Your task to perform on an android device: check storage Image 0: 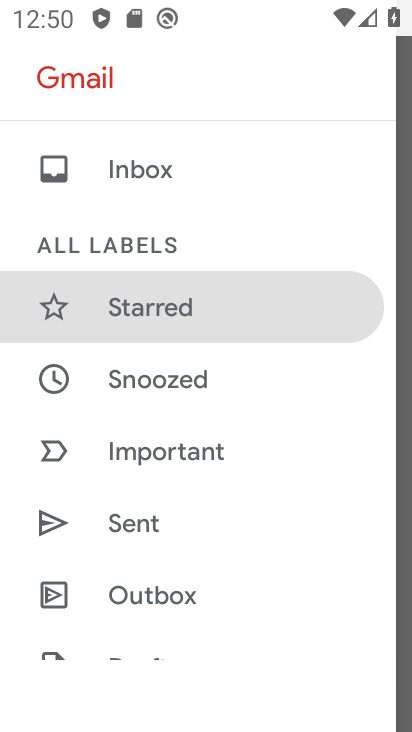
Step 0: press home button
Your task to perform on an android device: check storage Image 1: 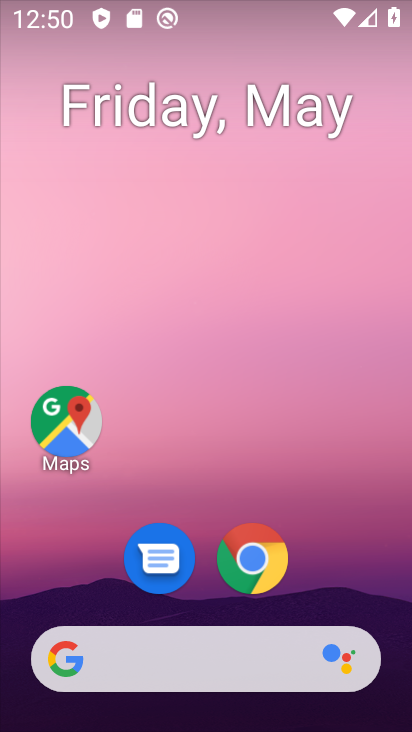
Step 1: drag from (369, 581) to (281, 103)
Your task to perform on an android device: check storage Image 2: 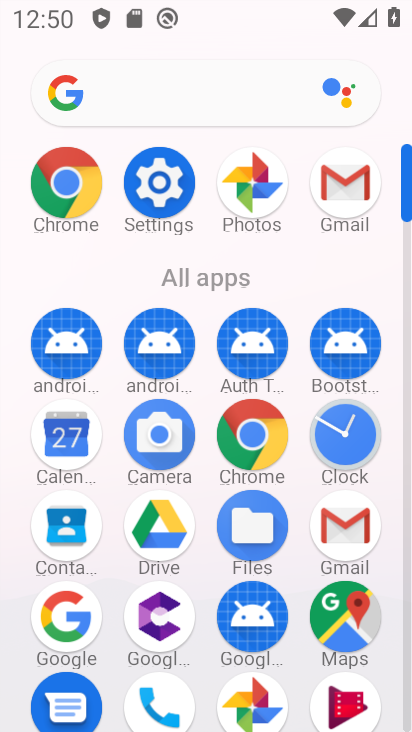
Step 2: click (173, 189)
Your task to perform on an android device: check storage Image 3: 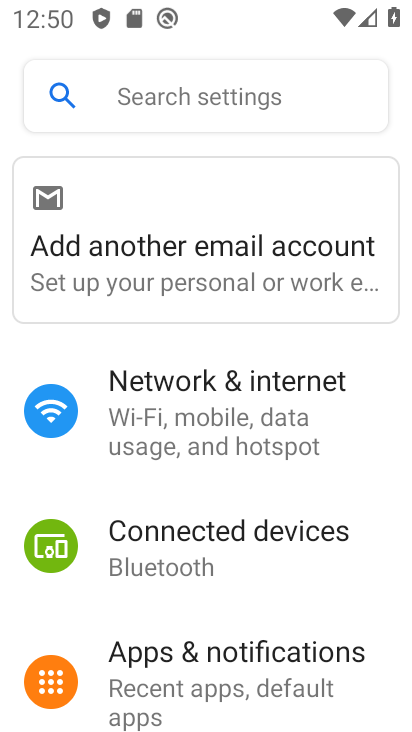
Step 3: drag from (267, 598) to (251, 194)
Your task to perform on an android device: check storage Image 4: 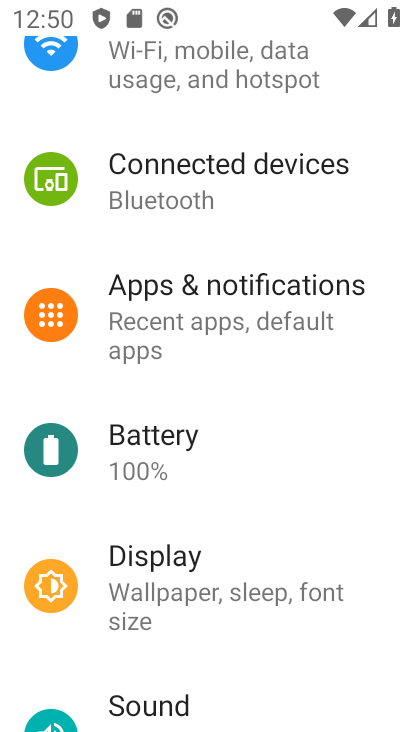
Step 4: drag from (252, 507) to (239, 156)
Your task to perform on an android device: check storage Image 5: 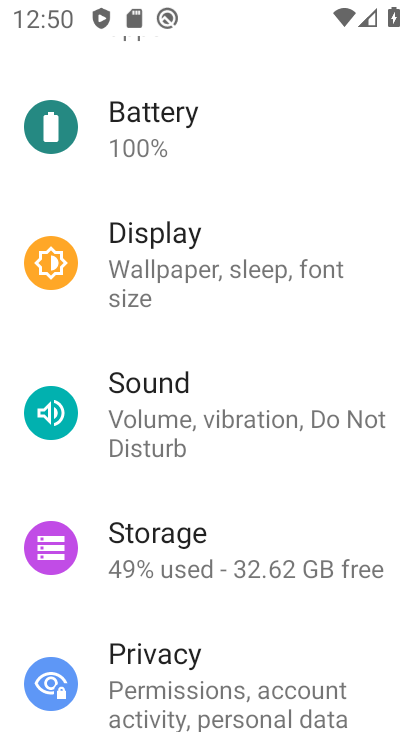
Step 5: click (230, 549)
Your task to perform on an android device: check storage Image 6: 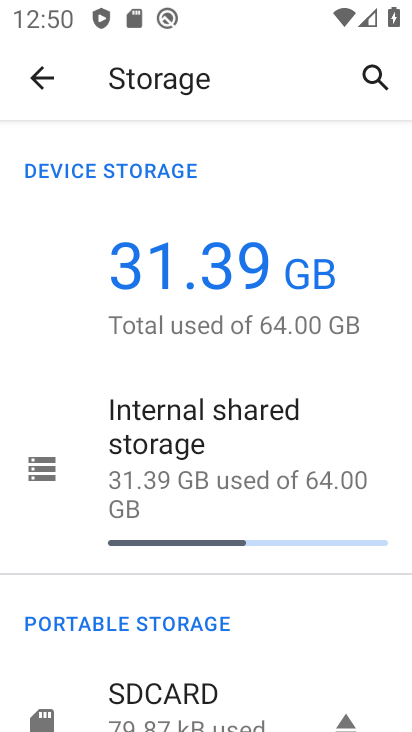
Step 6: task complete